Your task to perform on an android device: Go to Amazon Image 0: 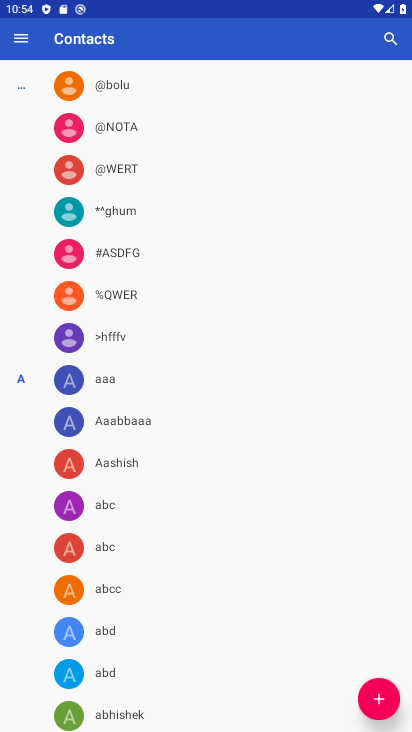
Step 0: press home button
Your task to perform on an android device: Go to Amazon Image 1: 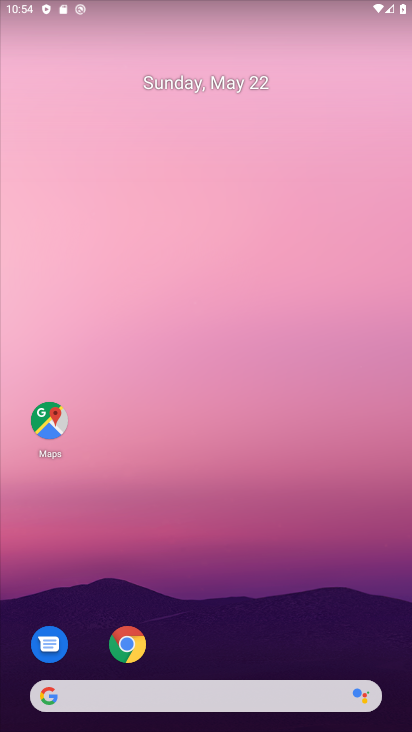
Step 1: click (119, 649)
Your task to perform on an android device: Go to Amazon Image 2: 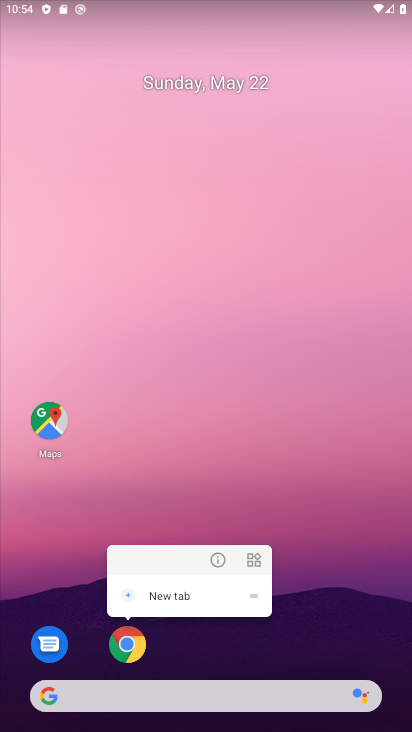
Step 2: click (131, 639)
Your task to perform on an android device: Go to Amazon Image 3: 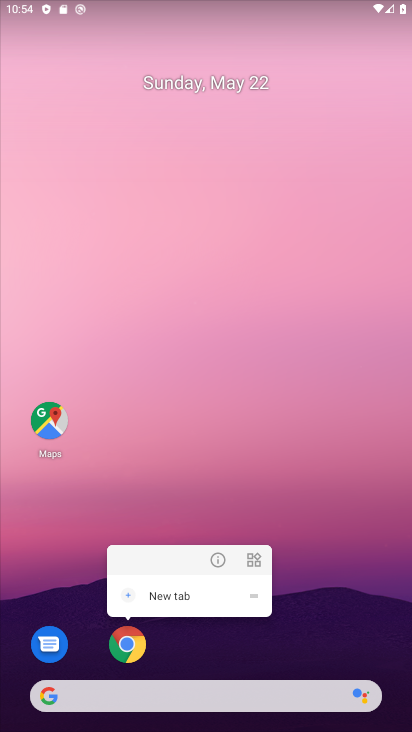
Step 3: click (131, 639)
Your task to perform on an android device: Go to Amazon Image 4: 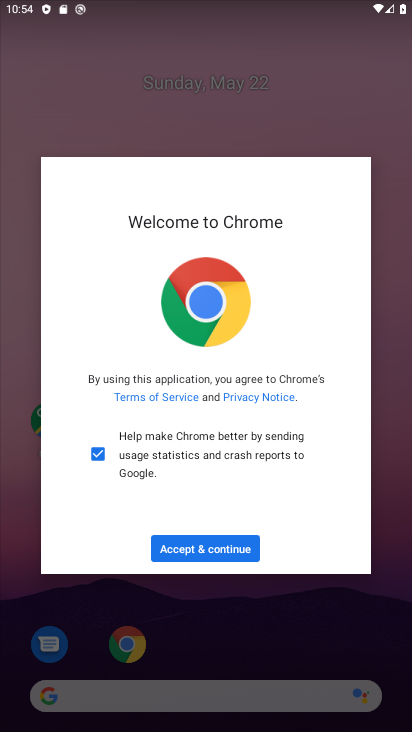
Step 4: click (183, 543)
Your task to perform on an android device: Go to Amazon Image 5: 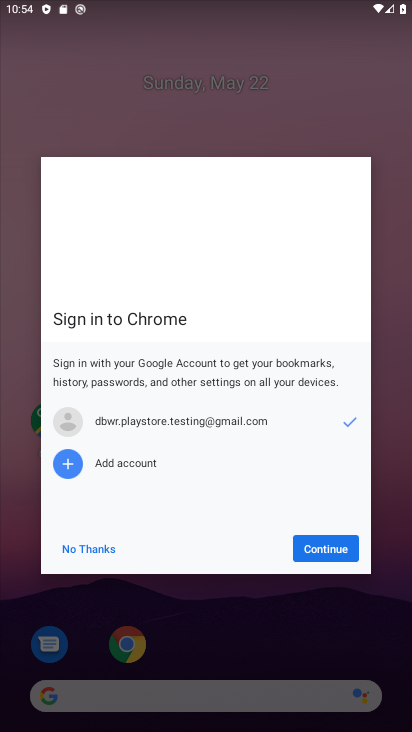
Step 5: click (318, 549)
Your task to perform on an android device: Go to Amazon Image 6: 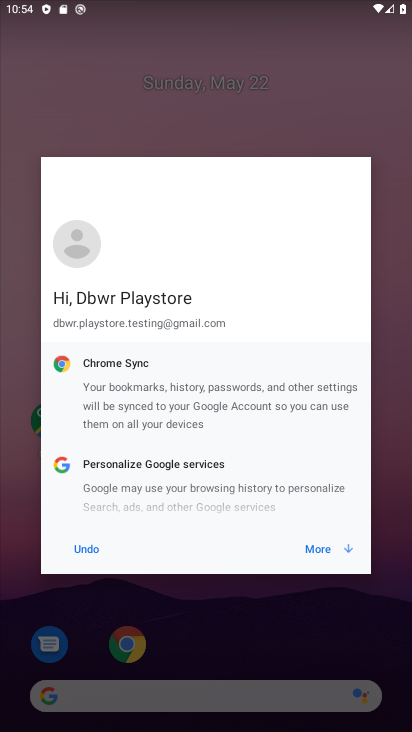
Step 6: click (318, 549)
Your task to perform on an android device: Go to Amazon Image 7: 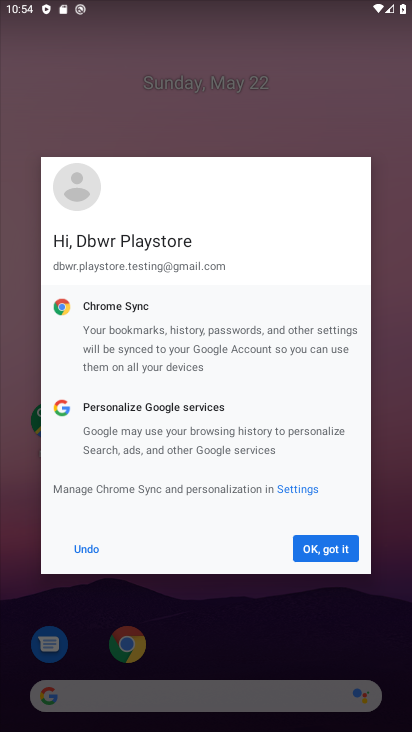
Step 7: click (318, 549)
Your task to perform on an android device: Go to Amazon Image 8: 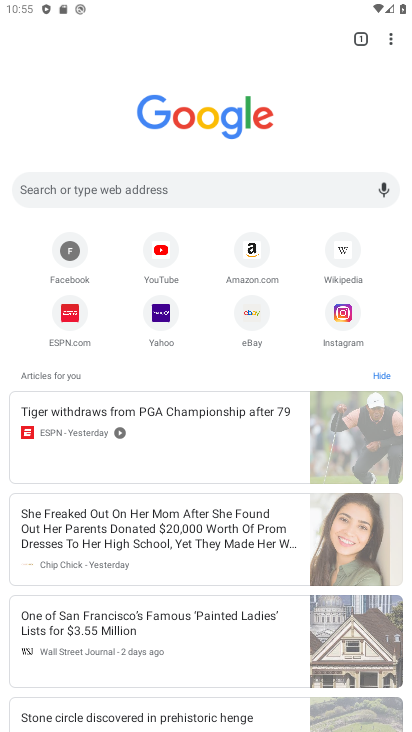
Step 8: click (251, 246)
Your task to perform on an android device: Go to Amazon Image 9: 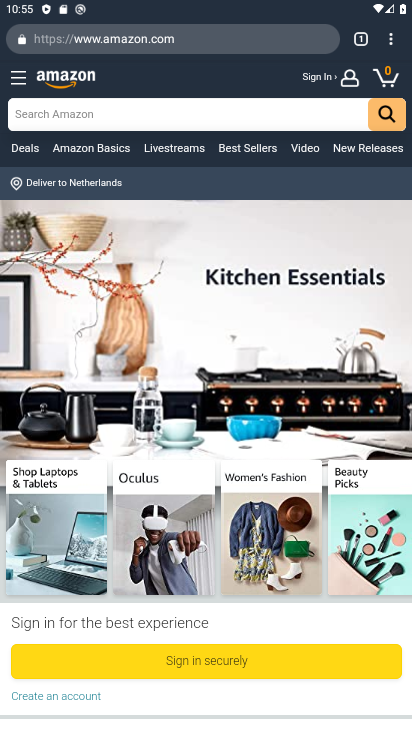
Step 9: task complete